Your task to perform on an android device: turn on showing notifications on the lock screen Image 0: 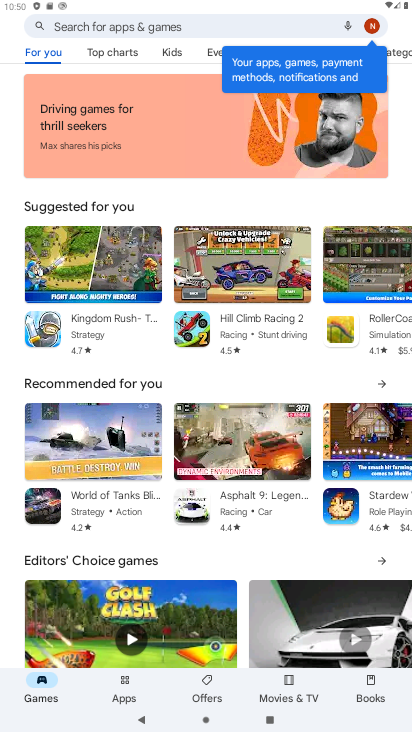
Step 0: press home button
Your task to perform on an android device: turn on showing notifications on the lock screen Image 1: 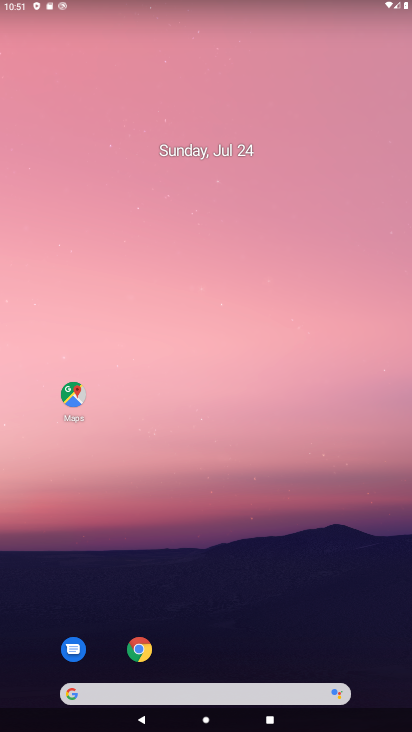
Step 1: drag from (224, 693) to (212, 228)
Your task to perform on an android device: turn on showing notifications on the lock screen Image 2: 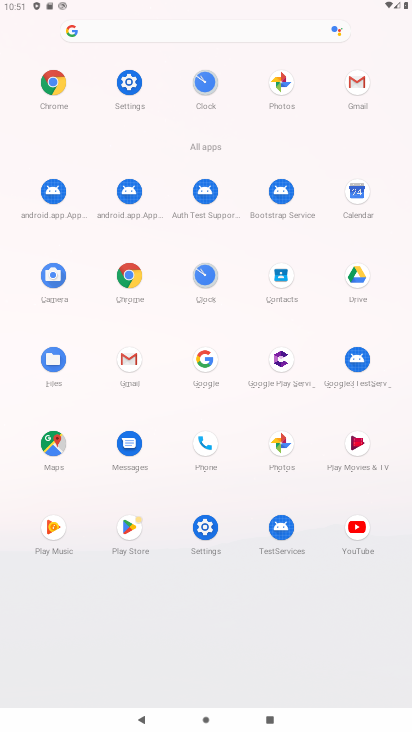
Step 2: click (202, 533)
Your task to perform on an android device: turn on showing notifications on the lock screen Image 3: 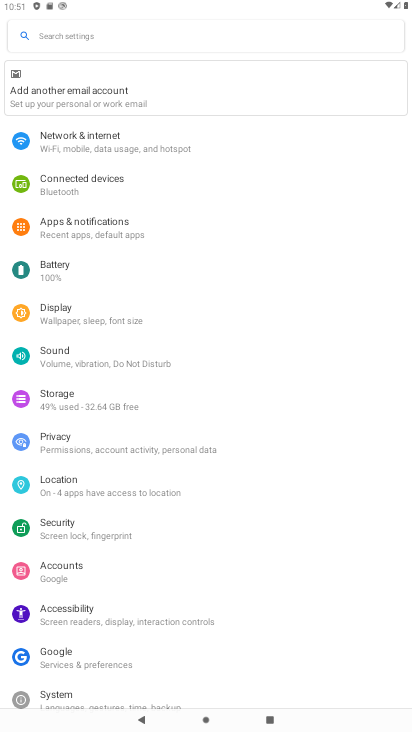
Step 3: click (67, 223)
Your task to perform on an android device: turn on showing notifications on the lock screen Image 4: 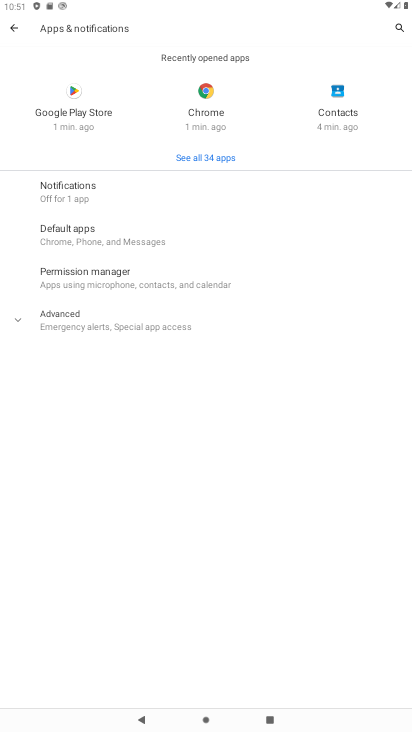
Step 4: click (88, 199)
Your task to perform on an android device: turn on showing notifications on the lock screen Image 5: 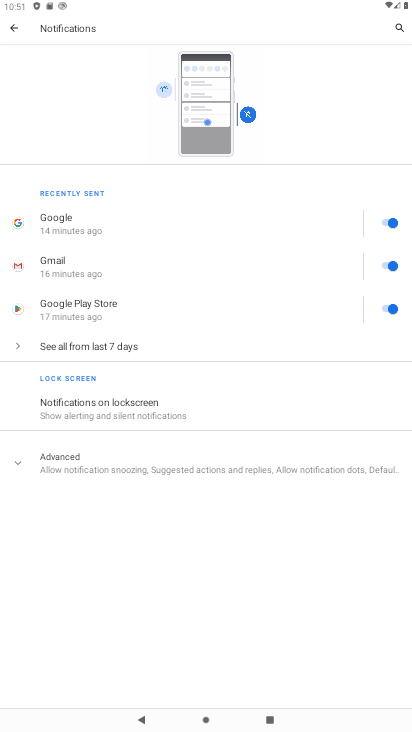
Step 5: click (113, 403)
Your task to perform on an android device: turn on showing notifications on the lock screen Image 6: 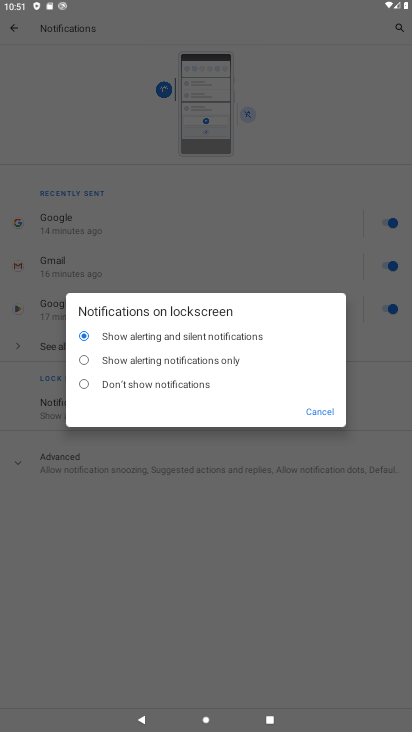
Step 6: click (118, 336)
Your task to perform on an android device: turn on showing notifications on the lock screen Image 7: 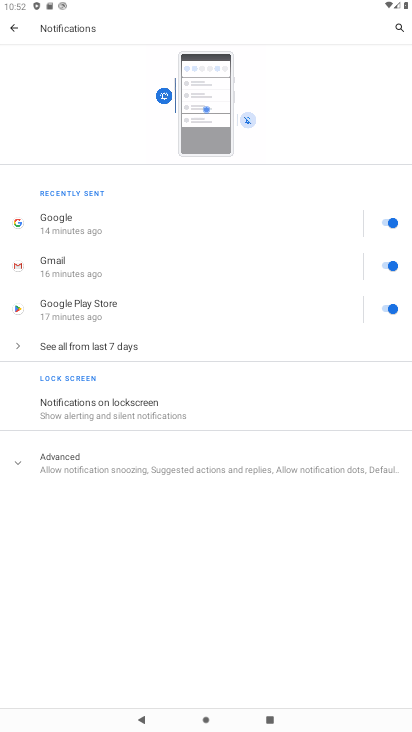
Step 7: task complete